Your task to perform on an android device: turn on showing notifications on the lock screen Image 0: 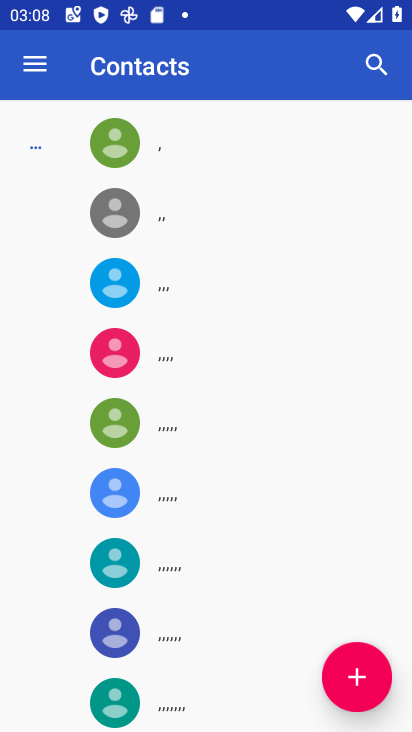
Step 0: press home button
Your task to perform on an android device: turn on showing notifications on the lock screen Image 1: 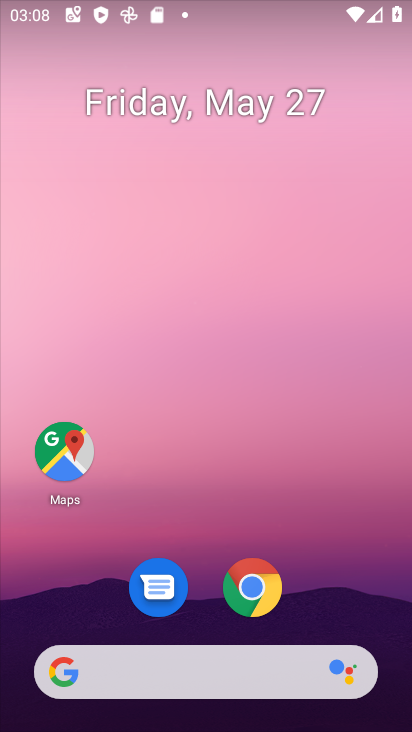
Step 1: drag from (234, 508) to (248, 153)
Your task to perform on an android device: turn on showing notifications on the lock screen Image 2: 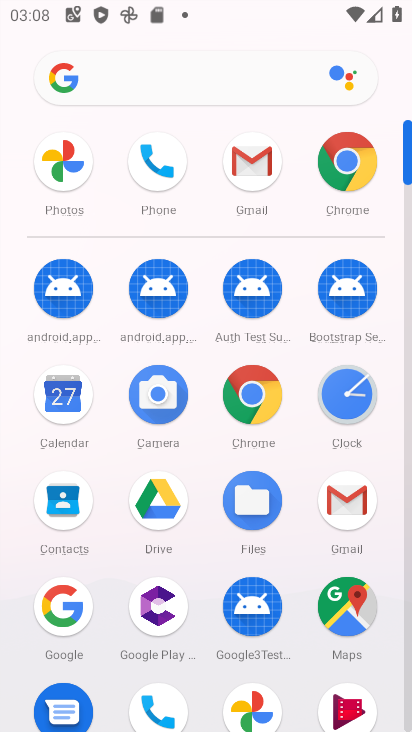
Step 2: drag from (298, 573) to (307, 319)
Your task to perform on an android device: turn on showing notifications on the lock screen Image 3: 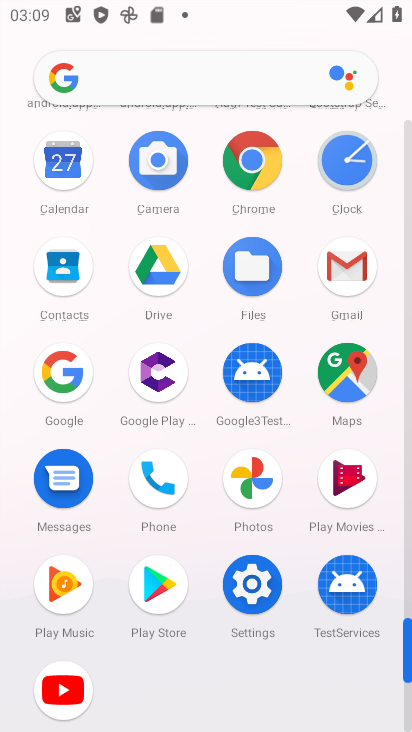
Step 3: click (249, 584)
Your task to perform on an android device: turn on showing notifications on the lock screen Image 4: 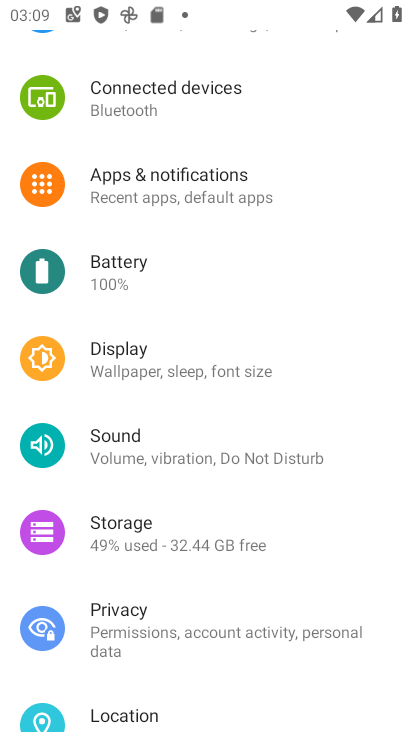
Step 4: click (218, 172)
Your task to perform on an android device: turn on showing notifications on the lock screen Image 5: 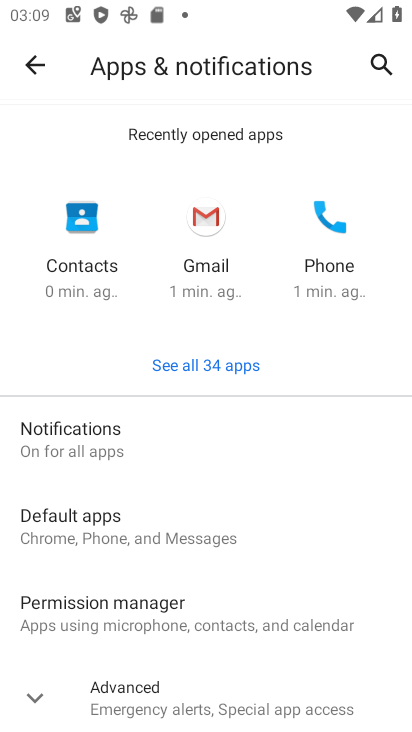
Step 5: click (86, 428)
Your task to perform on an android device: turn on showing notifications on the lock screen Image 6: 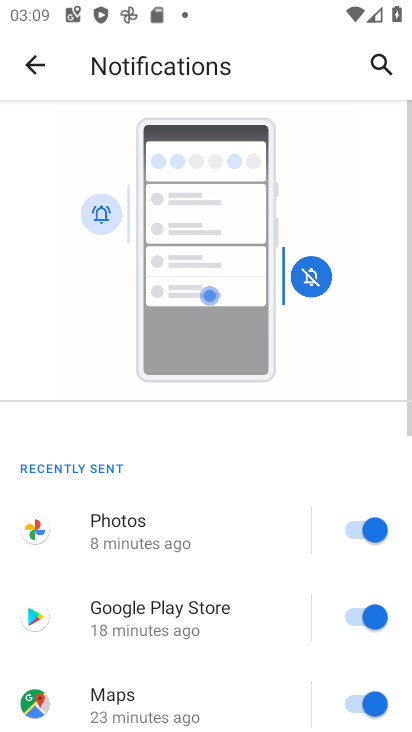
Step 6: drag from (264, 665) to (216, 194)
Your task to perform on an android device: turn on showing notifications on the lock screen Image 7: 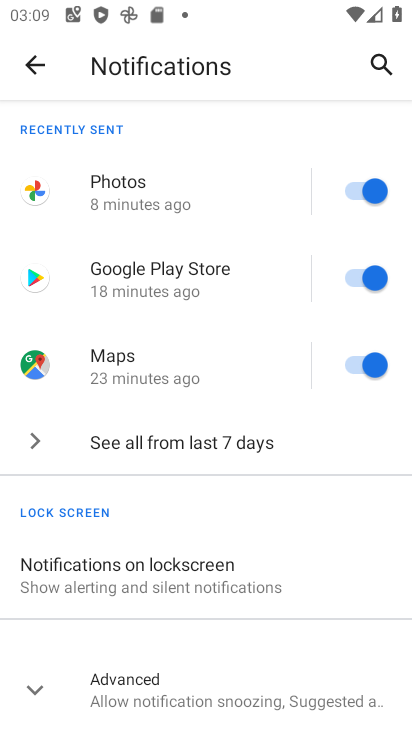
Step 7: click (72, 572)
Your task to perform on an android device: turn on showing notifications on the lock screen Image 8: 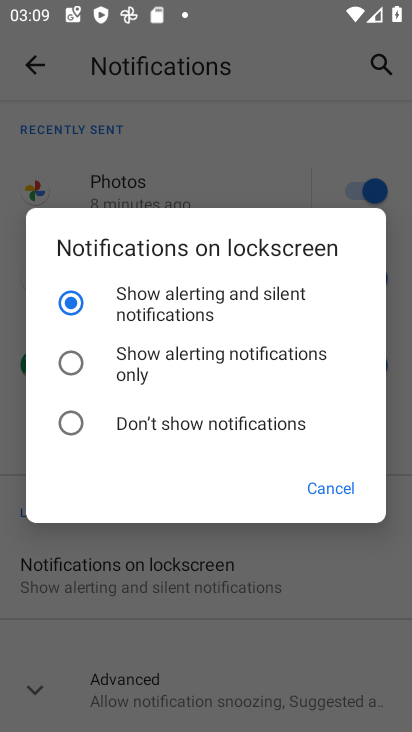
Step 8: task complete